Your task to perform on an android device: turn pop-ups on in chrome Image 0: 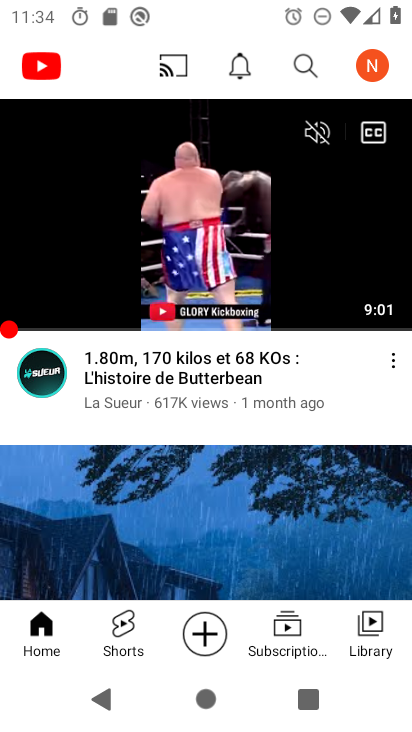
Step 0: press home button
Your task to perform on an android device: turn pop-ups on in chrome Image 1: 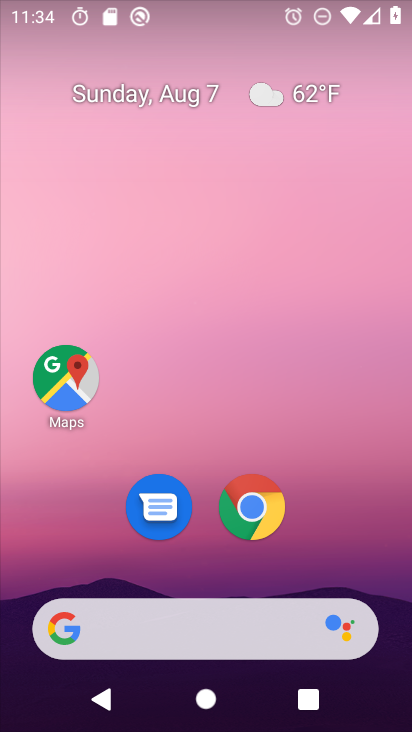
Step 1: drag from (355, 556) to (314, 75)
Your task to perform on an android device: turn pop-ups on in chrome Image 2: 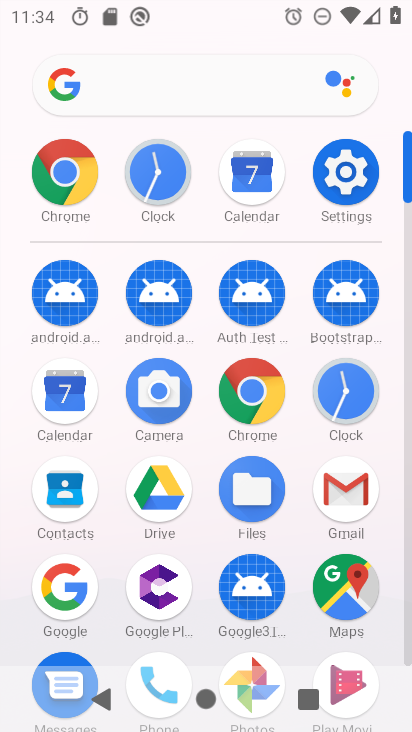
Step 2: click (250, 388)
Your task to perform on an android device: turn pop-ups on in chrome Image 3: 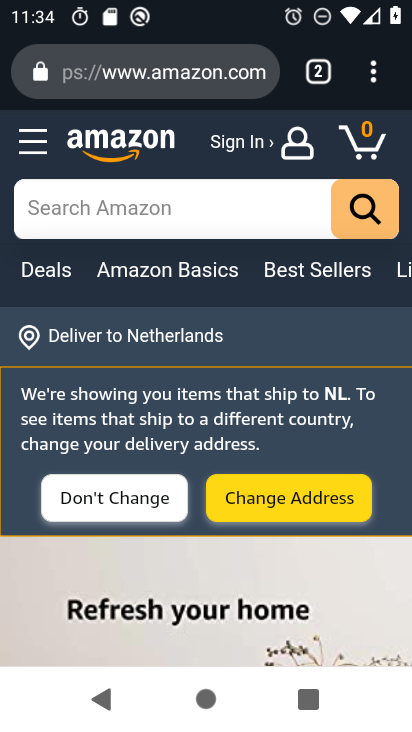
Step 3: drag from (377, 59) to (168, 514)
Your task to perform on an android device: turn pop-ups on in chrome Image 4: 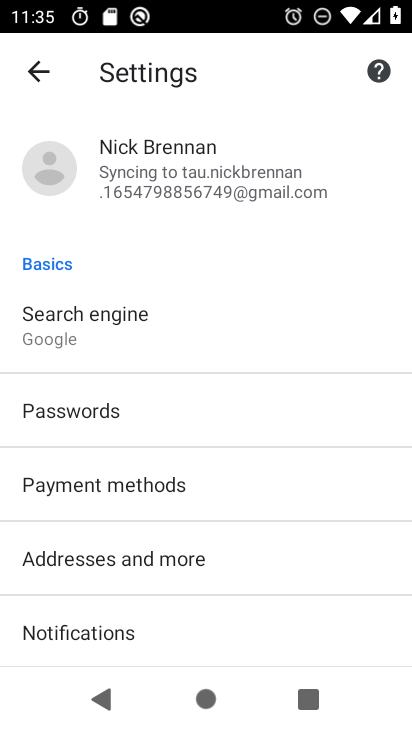
Step 4: drag from (283, 508) to (293, 130)
Your task to perform on an android device: turn pop-ups on in chrome Image 5: 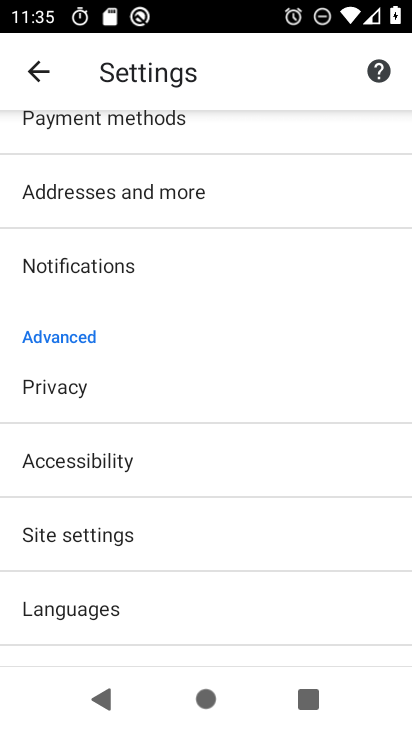
Step 5: click (136, 536)
Your task to perform on an android device: turn pop-ups on in chrome Image 6: 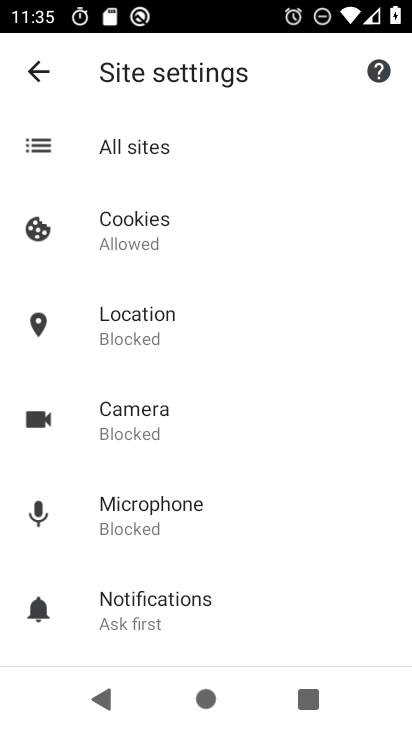
Step 6: drag from (261, 465) to (324, 115)
Your task to perform on an android device: turn pop-ups on in chrome Image 7: 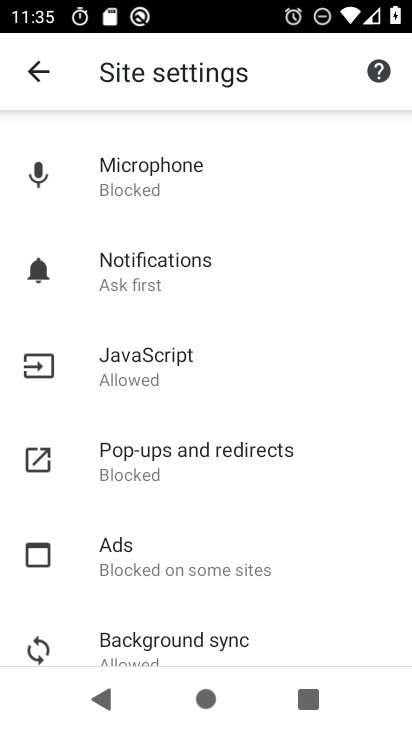
Step 7: click (199, 457)
Your task to perform on an android device: turn pop-ups on in chrome Image 8: 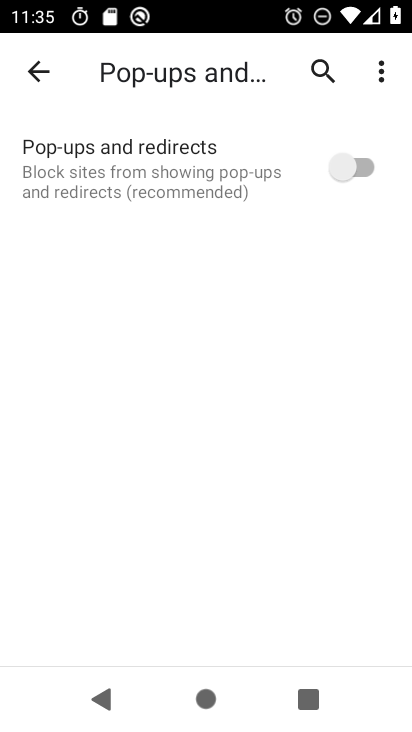
Step 8: click (359, 145)
Your task to perform on an android device: turn pop-ups on in chrome Image 9: 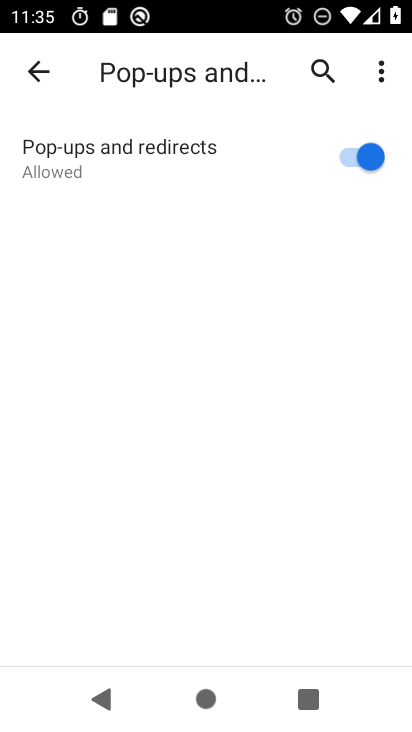
Step 9: task complete